Your task to perform on an android device: clear history in the chrome app Image 0: 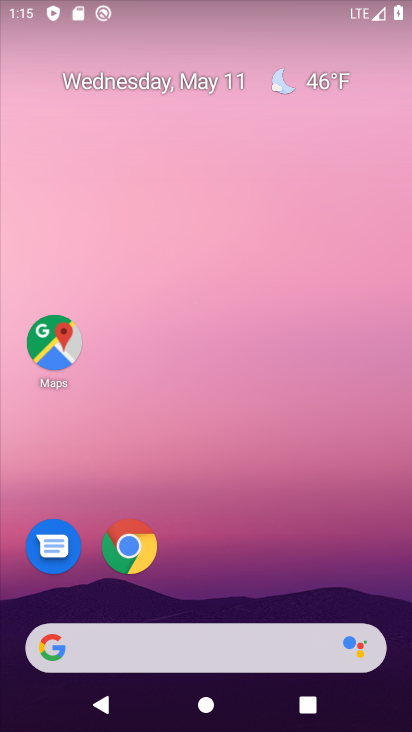
Step 0: drag from (254, 669) to (334, 207)
Your task to perform on an android device: clear history in the chrome app Image 1: 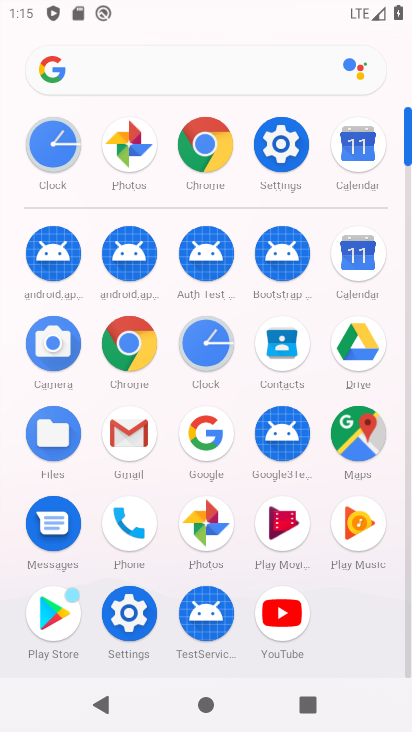
Step 1: click (135, 341)
Your task to perform on an android device: clear history in the chrome app Image 2: 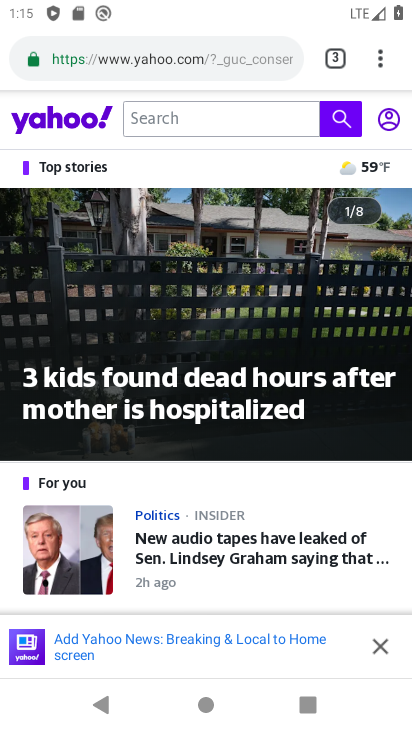
Step 2: click (378, 53)
Your task to perform on an android device: clear history in the chrome app Image 3: 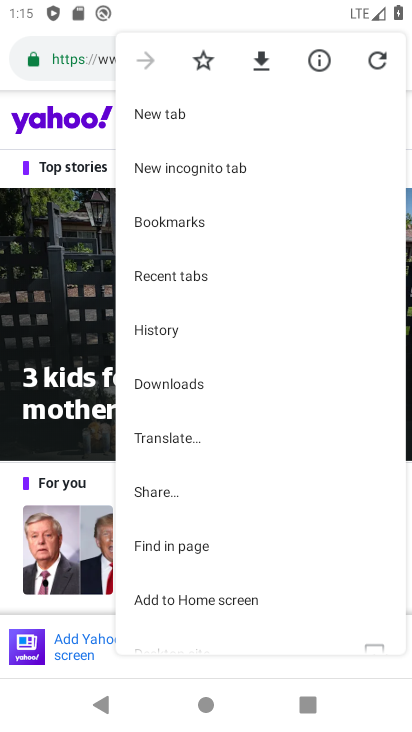
Step 3: click (167, 325)
Your task to perform on an android device: clear history in the chrome app Image 4: 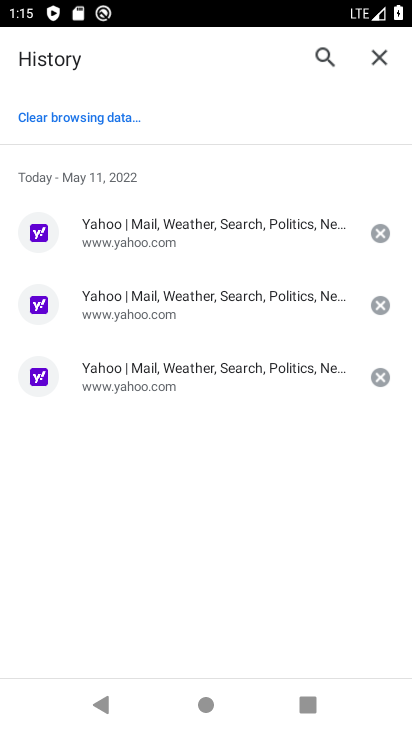
Step 4: click (87, 115)
Your task to perform on an android device: clear history in the chrome app Image 5: 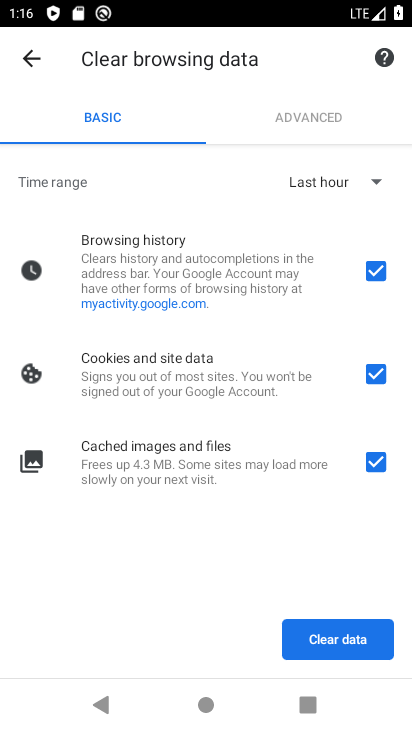
Step 5: click (355, 638)
Your task to perform on an android device: clear history in the chrome app Image 6: 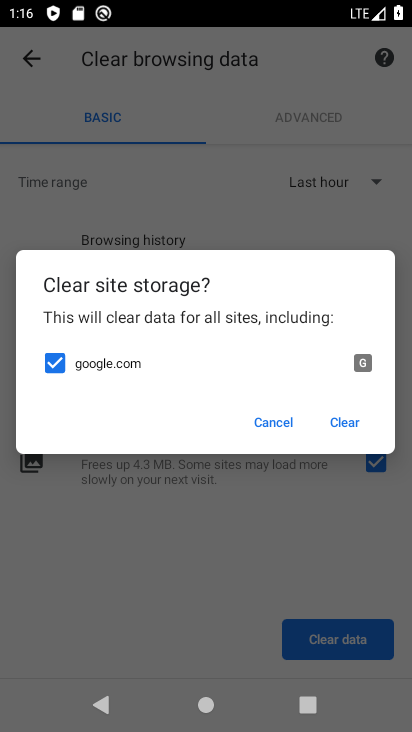
Step 6: task complete